Your task to perform on an android device: Show me productivity apps on the Play Store Image 0: 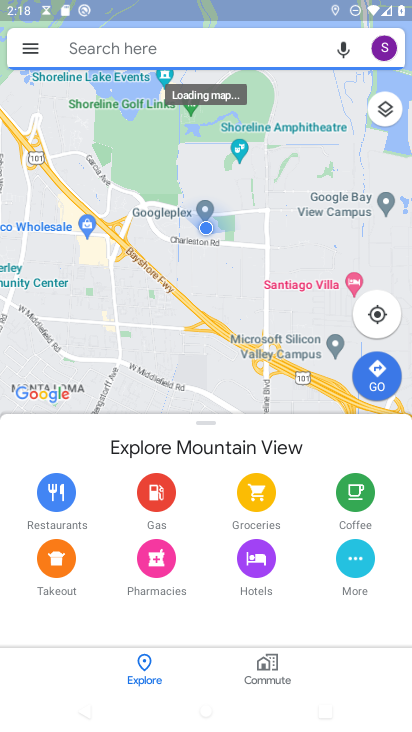
Step 0: press home button
Your task to perform on an android device: Show me productivity apps on the Play Store Image 1: 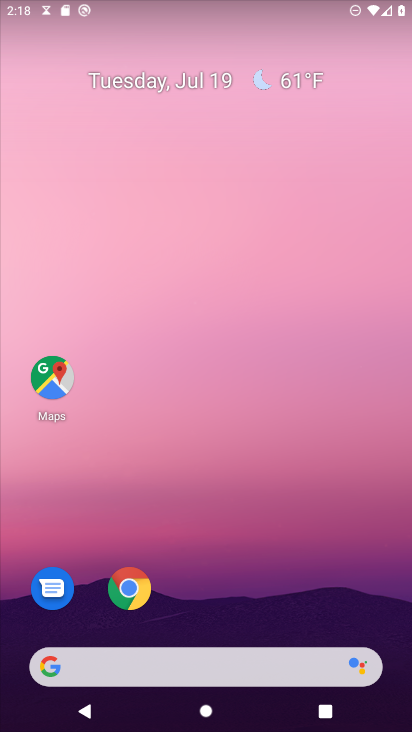
Step 1: drag from (230, 694) to (188, 192)
Your task to perform on an android device: Show me productivity apps on the Play Store Image 2: 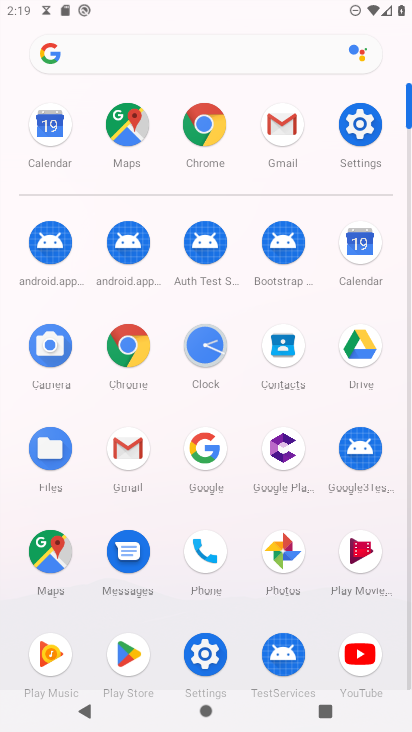
Step 2: click (130, 651)
Your task to perform on an android device: Show me productivity apps on the Play Store Image 3: 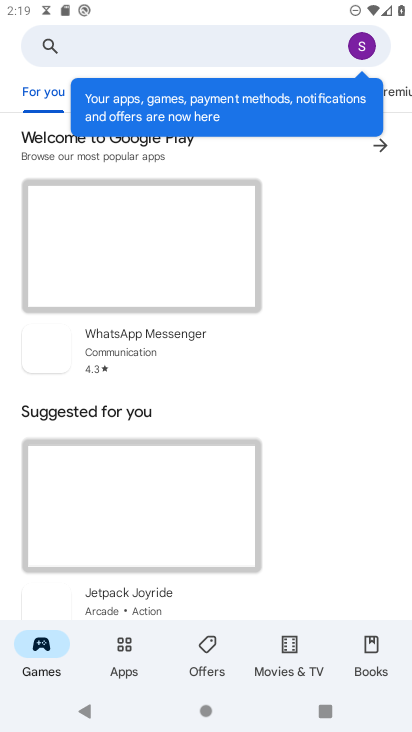
Step 3: click (159, 49)
Your task to perform on an android device: Show me productivity apps on the Play Store Image 4: 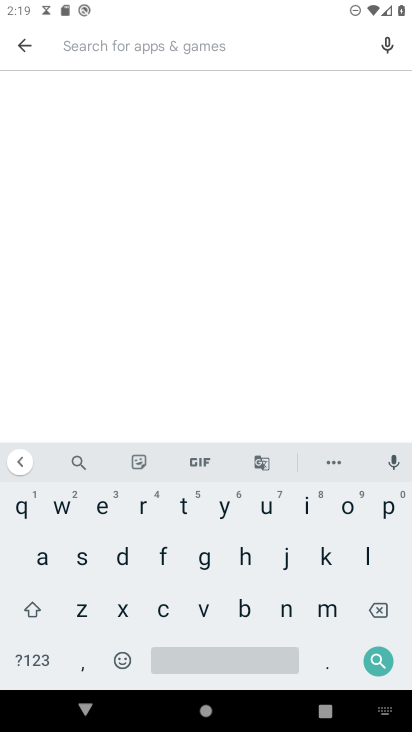
Step 4: click (383, 517)
Your task to perform on an android device: Show me productivity apps on the Play Store Image 5: 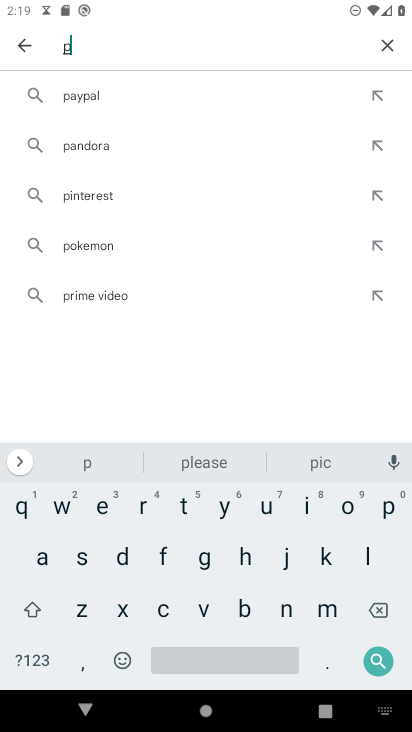
Step 5: click (139, 503)
Your task to perform on an android device: Show me productivity apps on the Play Store Image 6: 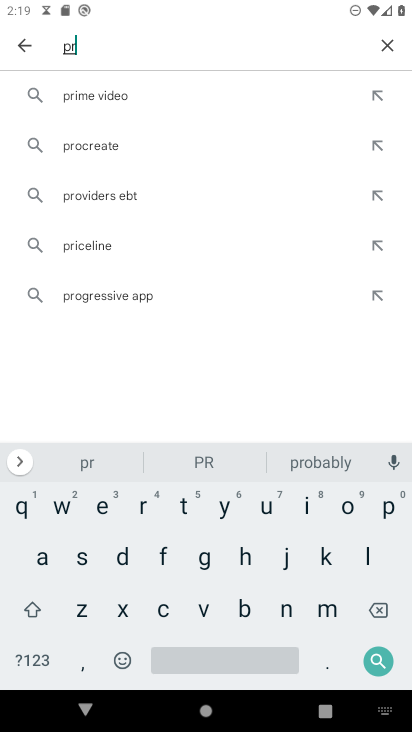
Step 6: click (344, 515)
Your task to perform on an android device: Show me productivity apps on the Play Store Image 7: 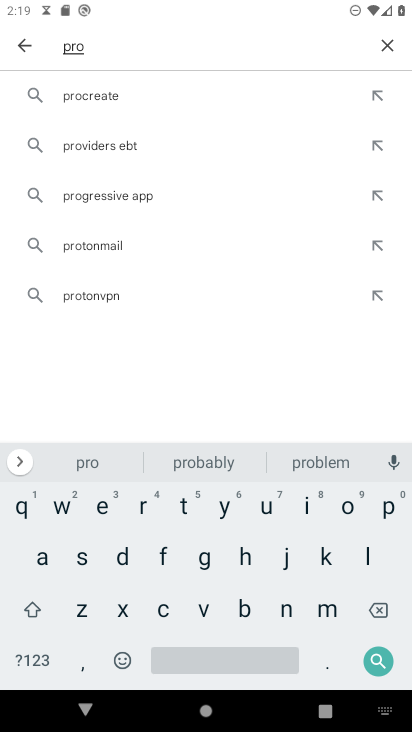
Step 7: click (115, 557)
Your task to perform on an android device: Show me productivity apps on the Play Store Image 8: 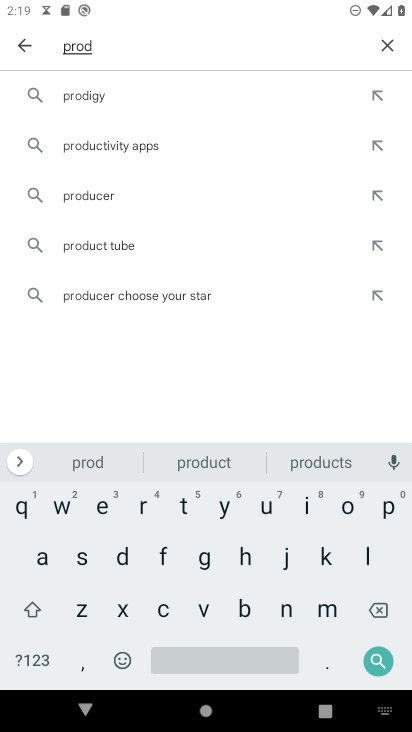
Step 8: click (102, 146)
Your task to perform on an android device: Show me productivity apps on the Play Store Image 9: 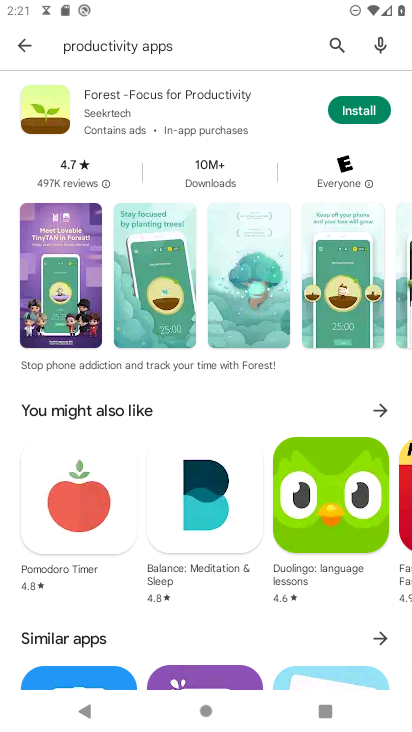
Step 9: task complete